Your task to perform on an android device: Go to battery settings Image 0: 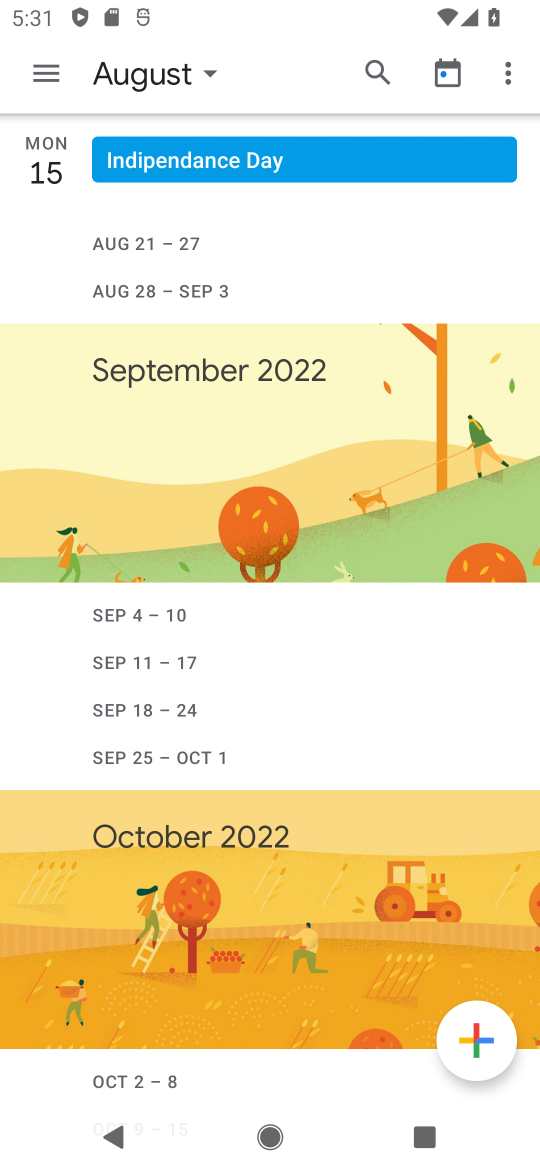
Step 0: press home button
Your task to perform on an android device: Go to battery settings Image 1: 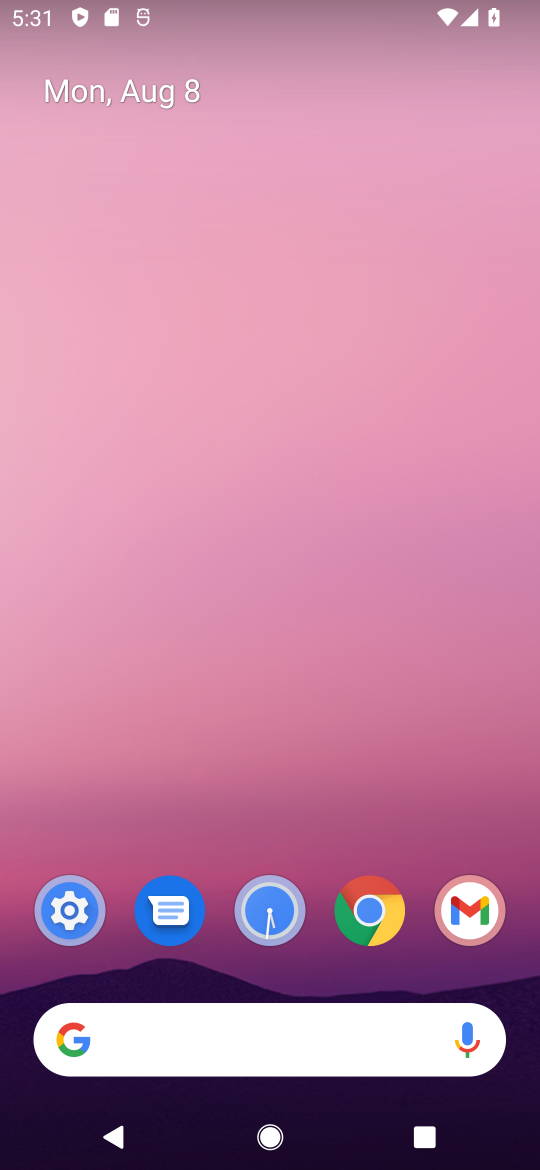
Step 1: click (69, 909)
Your task to perform on an android device: Go to battery settings Image 2: 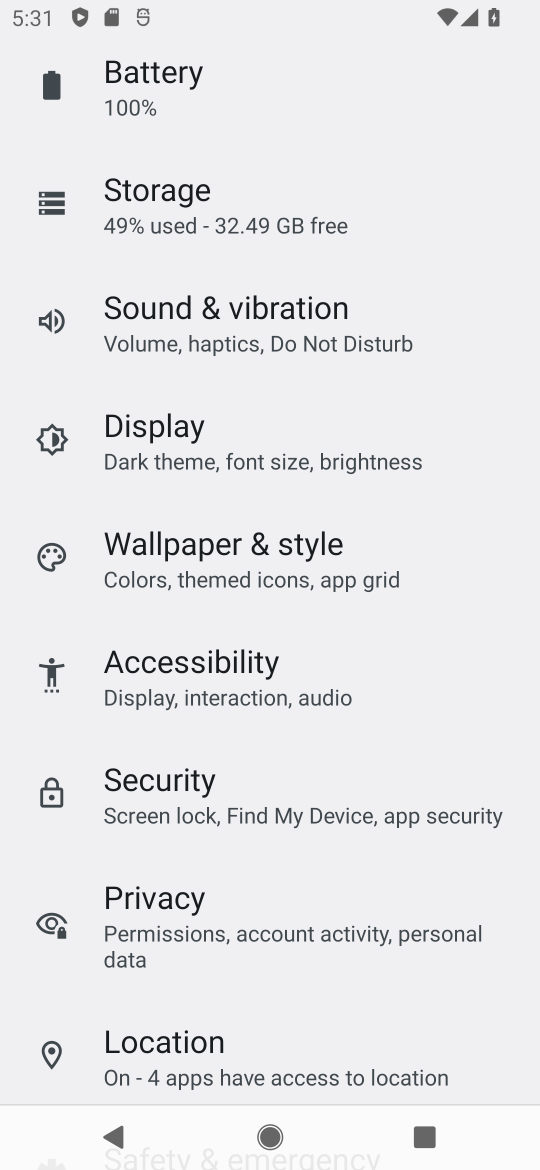
Step 2: click (156, 109)
Your task to perform on an android device: Go to battery settings Image 3: 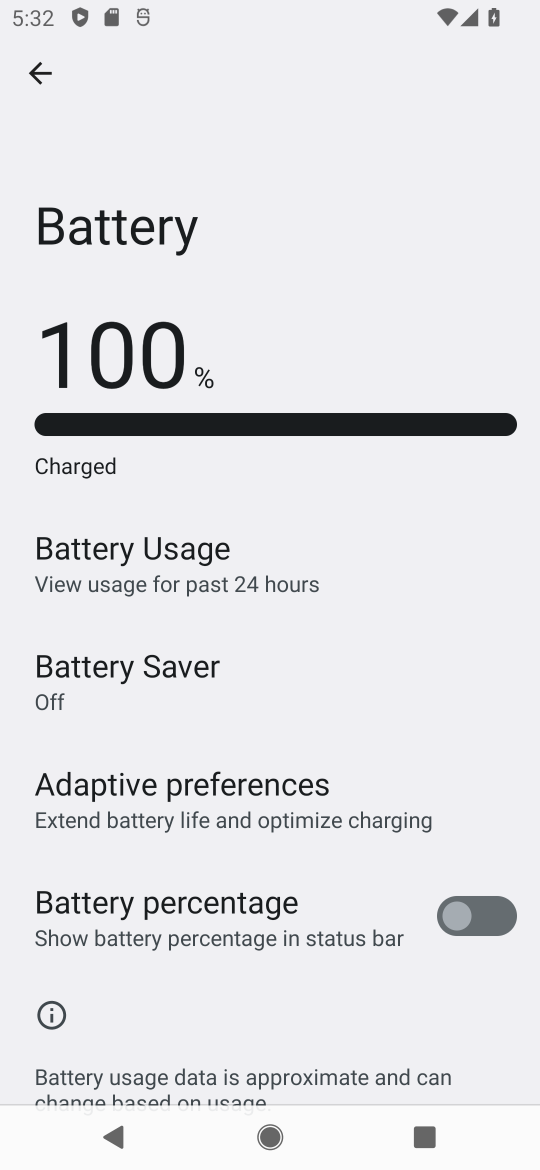
Step 3: task complete